Your task to perform on an android device: Open Chrome and go to the settings page Image 0: 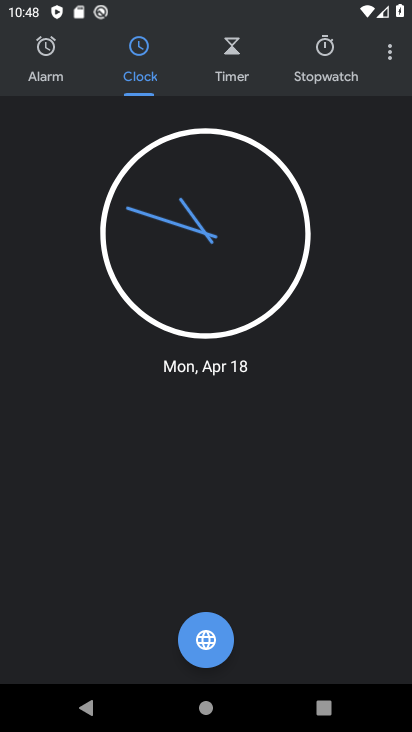
Step 0: press back button
Your task to perform on an android device: Open Chrome and go to the settings page Image 1: 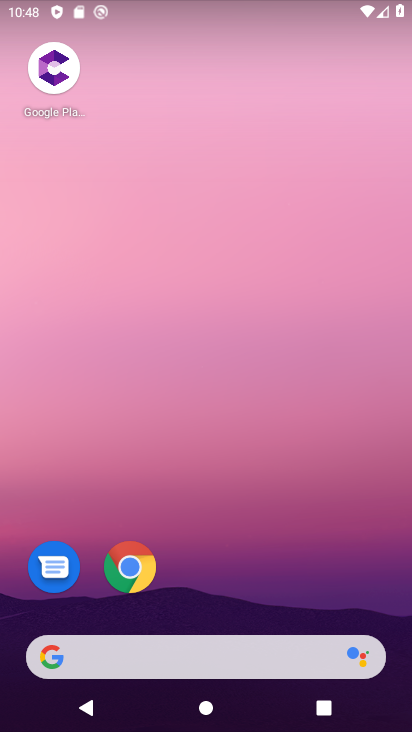
Step 1: click (126, 569)
Your task to perform on an android device: Open Chrome and go to the settings page Image 2: 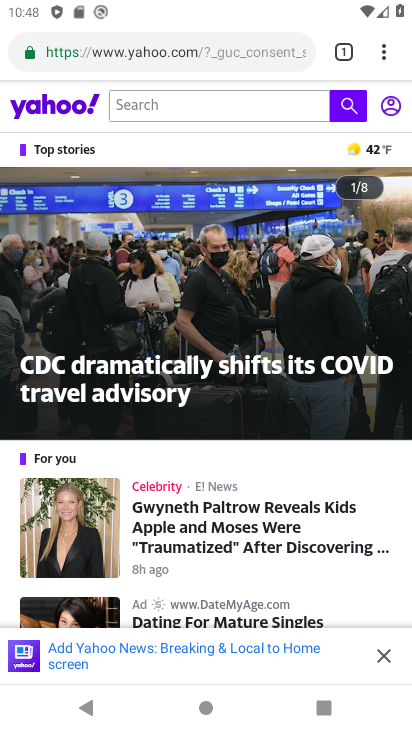
Step 2: click (384, 54)
Your task to perform on an android device: Open Chrome and go to the settings page Image 3: 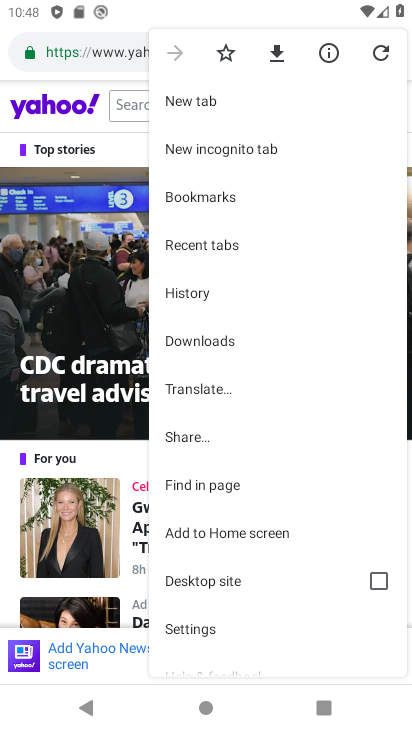
Step 3: click (204, 627)
Your task to perform on an android device: Open Chrome and go to the settings page Image 4: 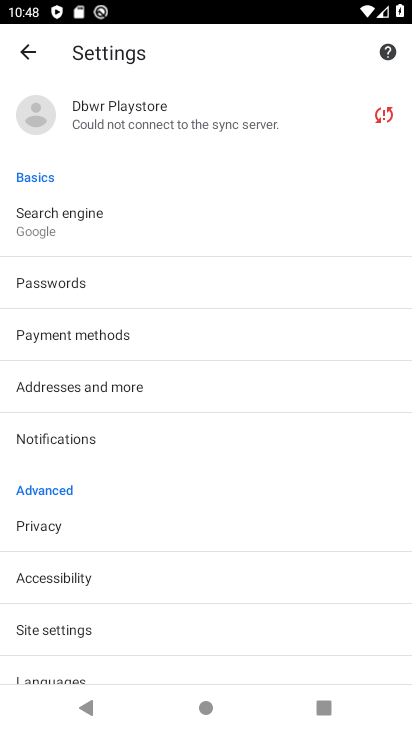
Step 4: task complete